Your task to perform on an android device: What is the recent news? Image 0: 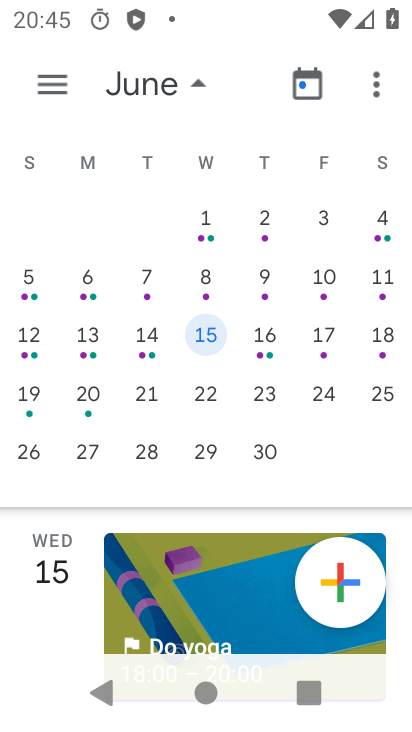
Step 0: press back button
Your task to perform on an android device: What is the recent news? Image 1: 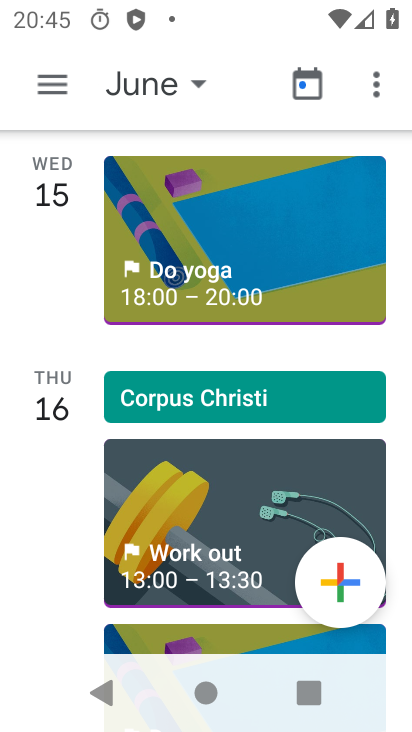
Step 1: task complete